Your task to perform on an android device: Open battery settings Image 0: 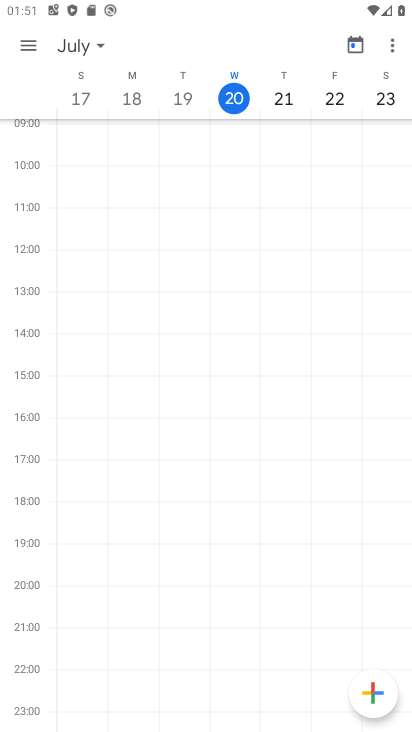
Step 0: press home button
Your task to perform on an android device: Open battery settings Image 1: 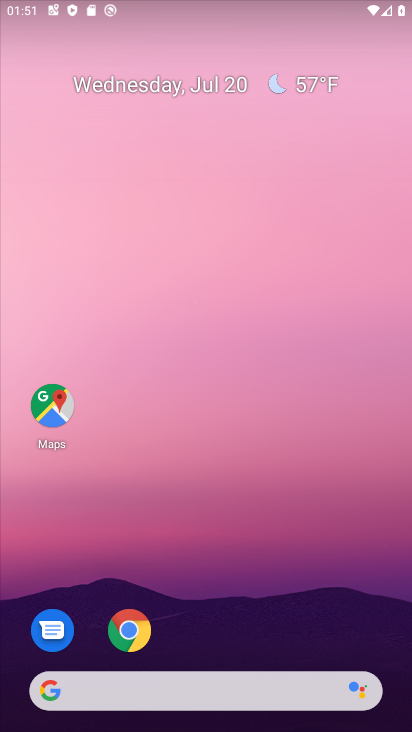
Step 1: drag from (260, 572) to (302, 98)
Your task to perform on an android device: Open battery settings Image 2: 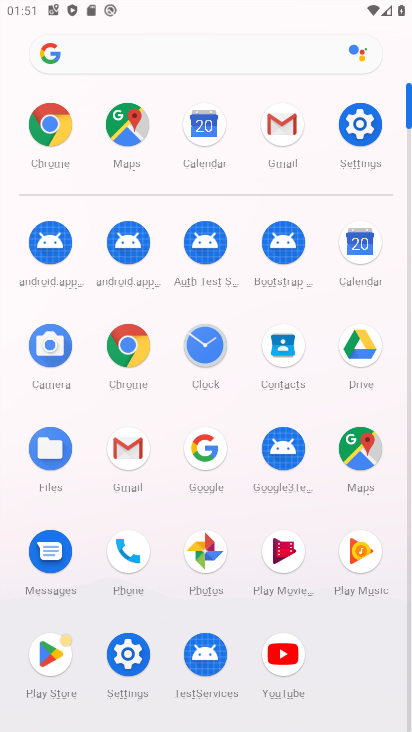
Step 2: click (352, 125)
Your task to perform on an android device: Open battery settings Image 3: 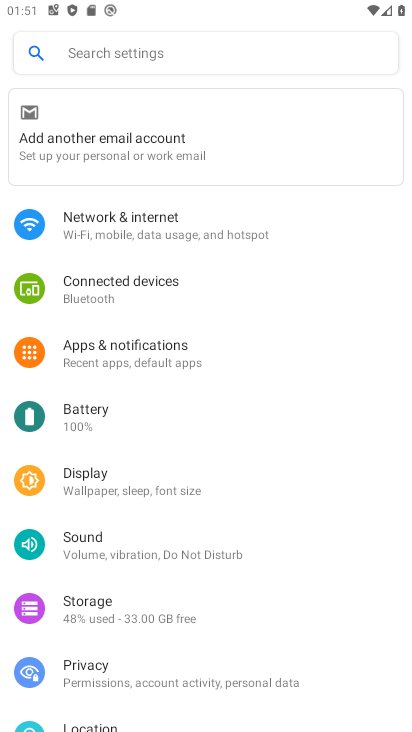
Step 3: drag from (283, 502) to (405, 110)
Your task to perform on an android device: Open battery settings Image 4: 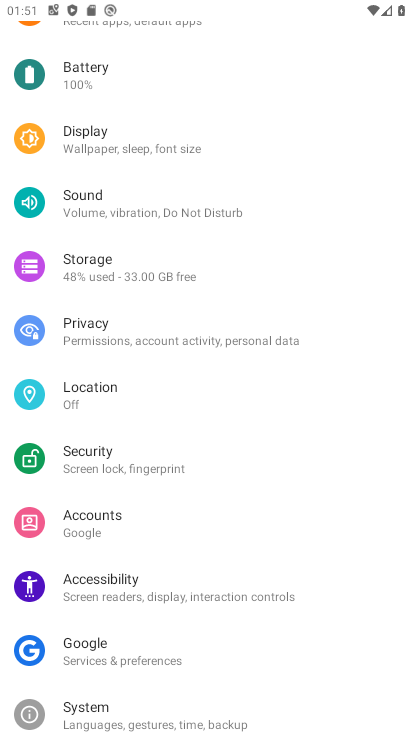
Step 4: click (76, 73)
Your task to perform on an android device: Open battery settings Image 5: 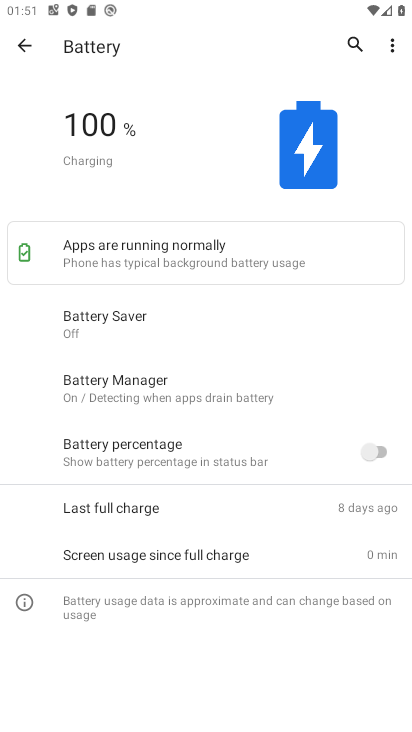
Step 5: task complete